Your task to perform on an android device: show emergency info Image 0: 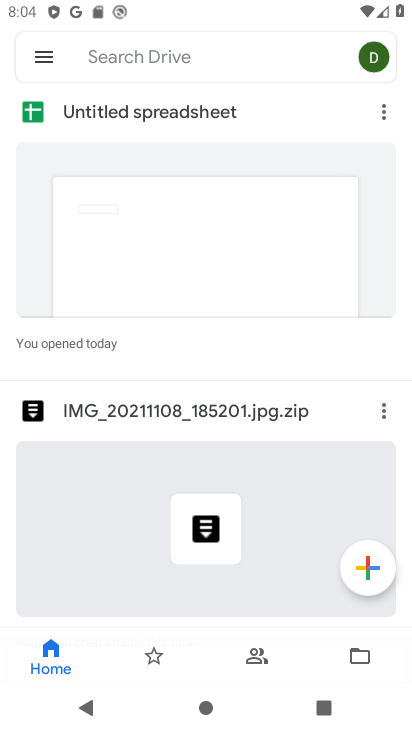
Step 0: press home button
Your task to perform on an android device: show emergency info Image 1: 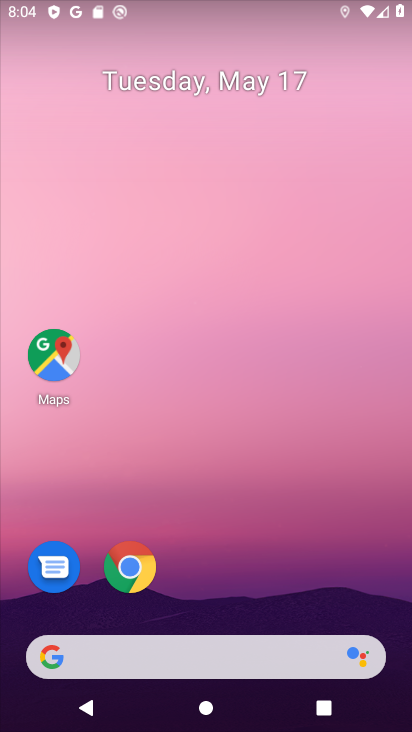
Step 1: drag from (207, 583) to (363, 119)
Your task to perform on an android device: show emergency info Image 2: 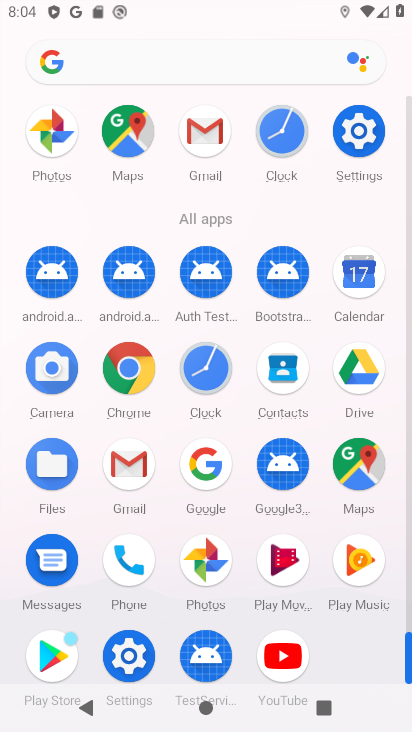
Step 2: drag from (178, 616) to (264, 367)
Your task to perform on an android device: show emergency info Image 3: 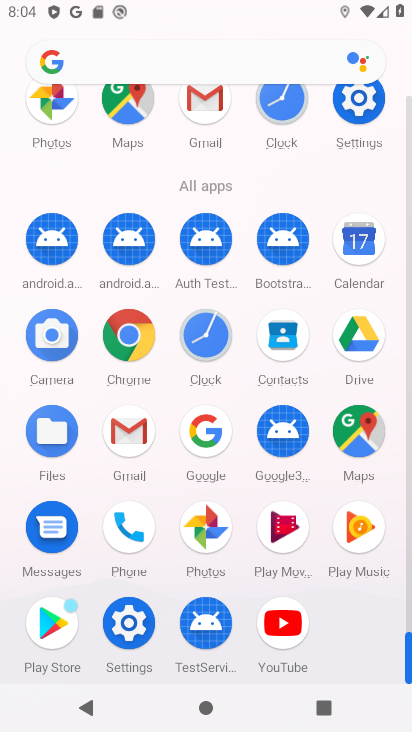
Step 3: click (132, 629)
Your task to perform on an android device: show emergency info Image 4: 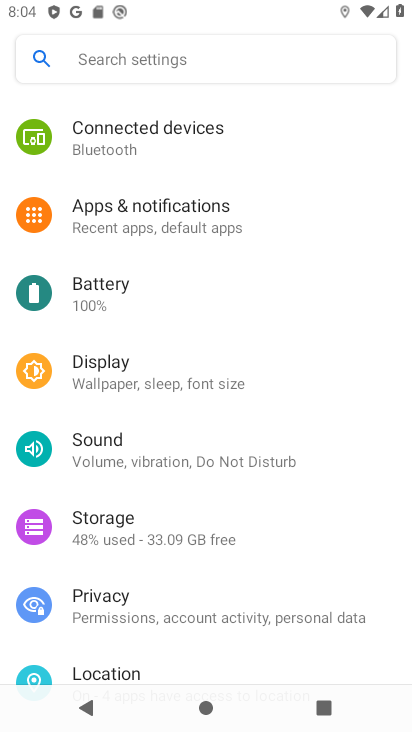
Step 4: drag from (162, 609) to (406, 0)
Your task to perform on an android device: show emergency info Image 5: 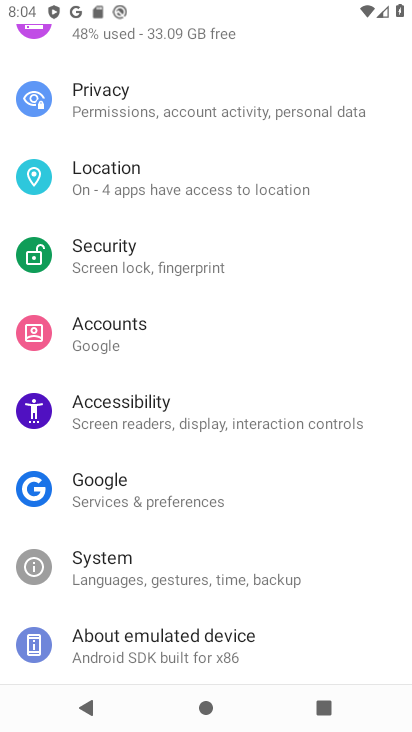
Step 5: click (214, 659)
Your task to perform on an android device: show emergency info Image 6: 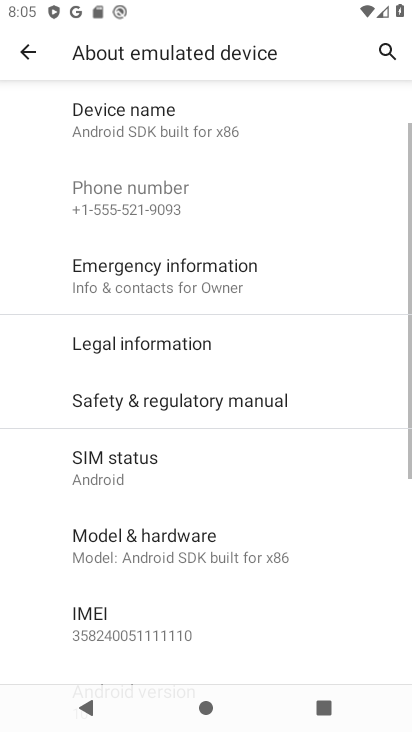
Step 6: click (216, 283)
Your task to perform on an android device: show emergency info Image 7: 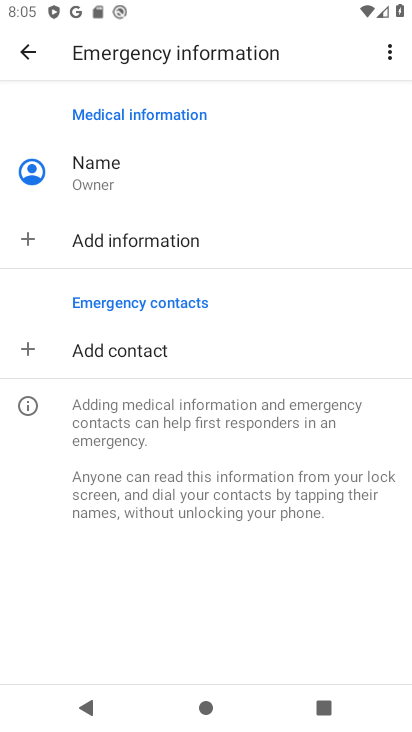
Step 7: task complete